Your task to perform on an android device: choose inbox layout in the gmail app Image 0: 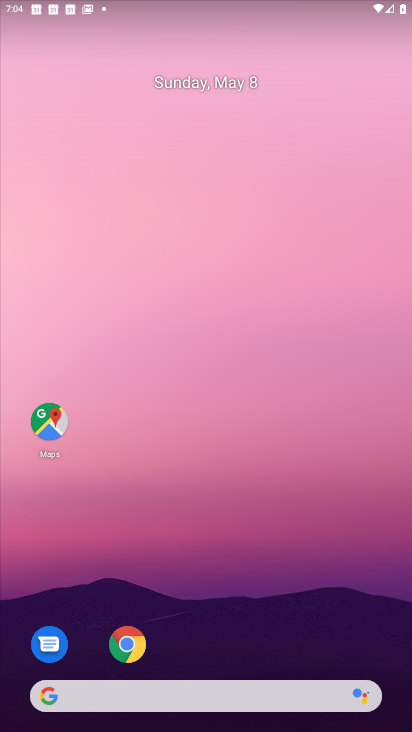
Step 0: drag from (328, 616) to (216, 230)
Your task to perform on an android device: choose inbox layout in the gmail app Image 1: 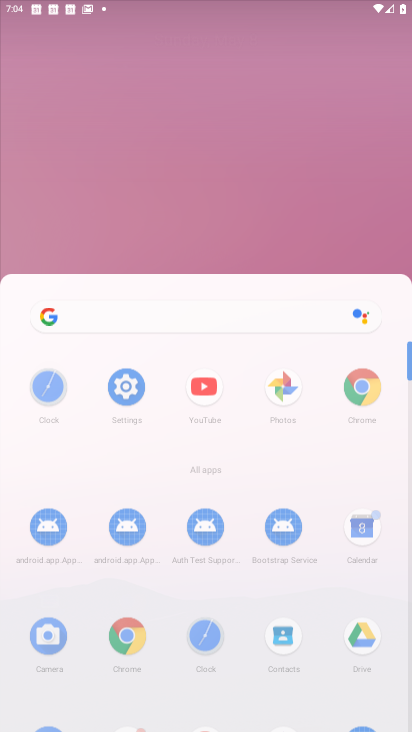
Step 1: click (216, 230)
Your task to perform on an android device: choose inbox layout in the gmail app Image 2: 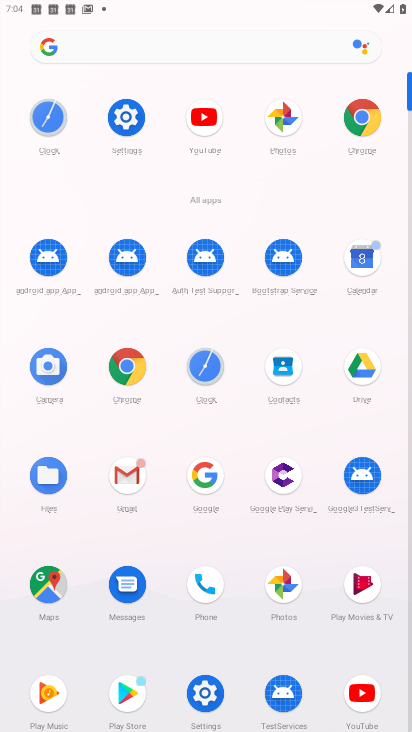
Step 2: click (116, 479)
Your task to perform on an android device: choose inbox layout in the gmail app Image 3: 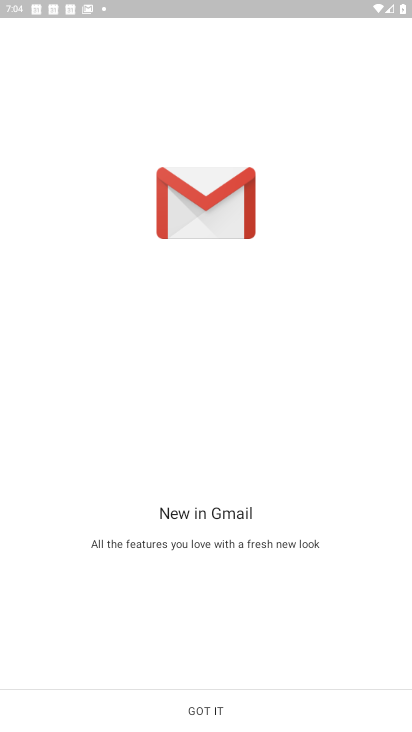
Step 3: click (169, 701)
Your task to perform on an android device: choose inbox layout in the gmail app Image 4: 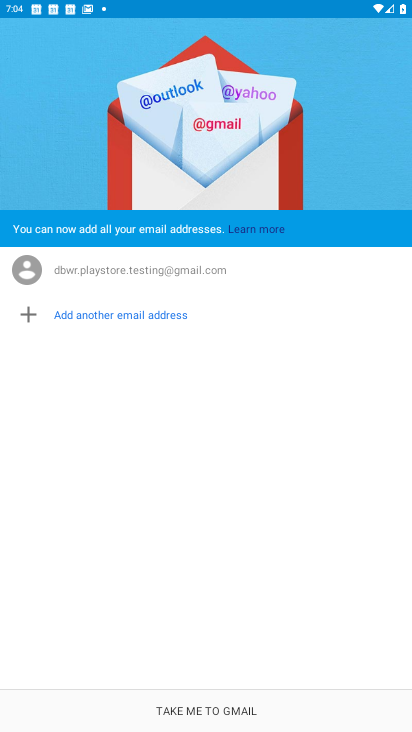
Step 4: click (169, 701)
Your task to perform on an android device: choose inbox layout in the gmail app Image 5: 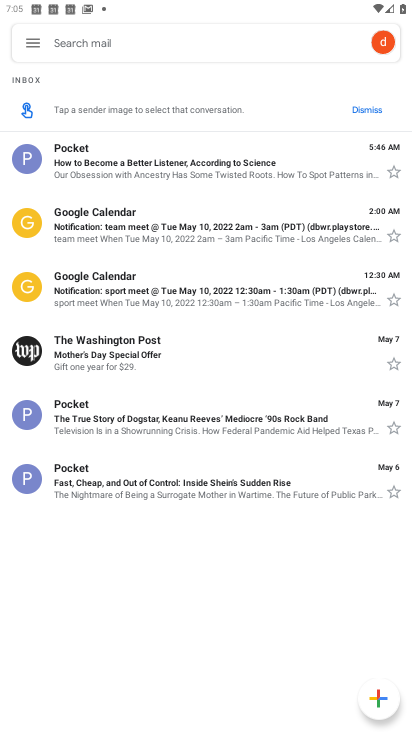
Step 5: task complete